Your task to perform on an android device: change the clock display to show seconds Image 0: 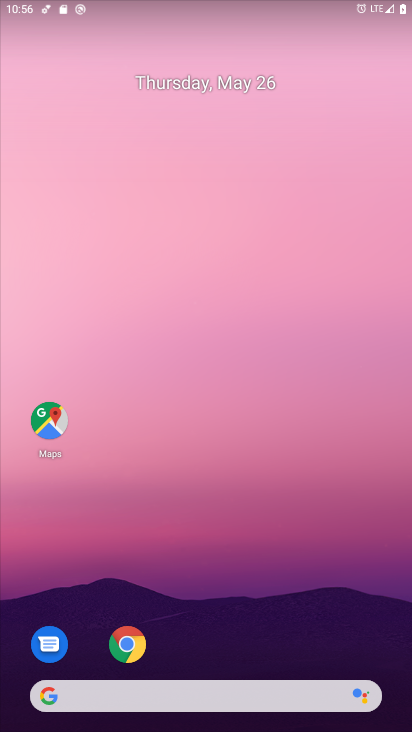
Step 0: drag from (399, 618) to (386, 176)
Your task to perform on an android device: change the clock display to show seconds Image 1: 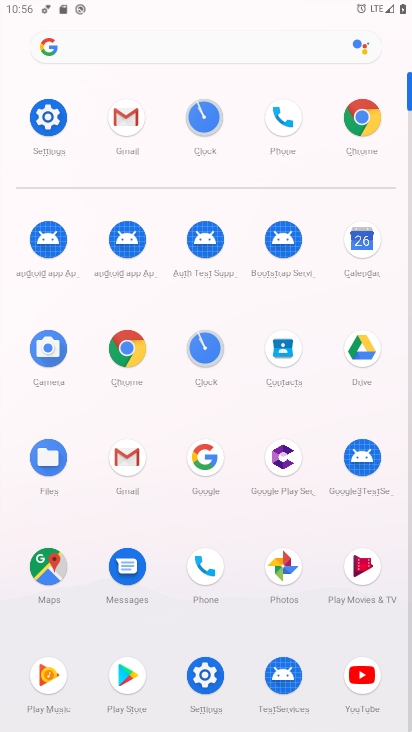
Step 1: click (208, 352)
Your task to perform on an android device: change the clock display to show seconds Image 2: 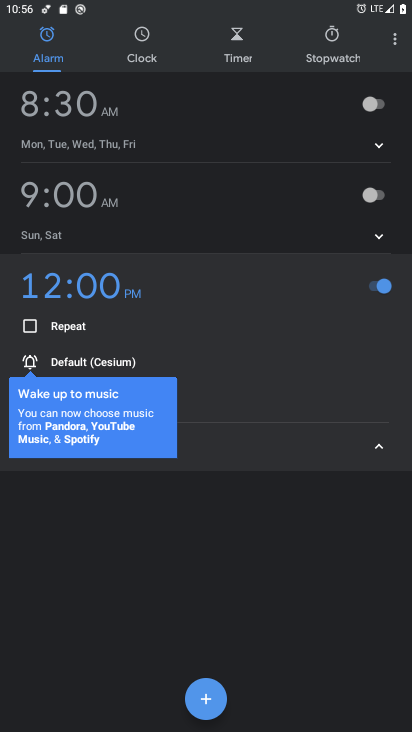
Step 2: click (393, 37)
Your task to perform on an android device: change the clock display to show seconds Image 3: 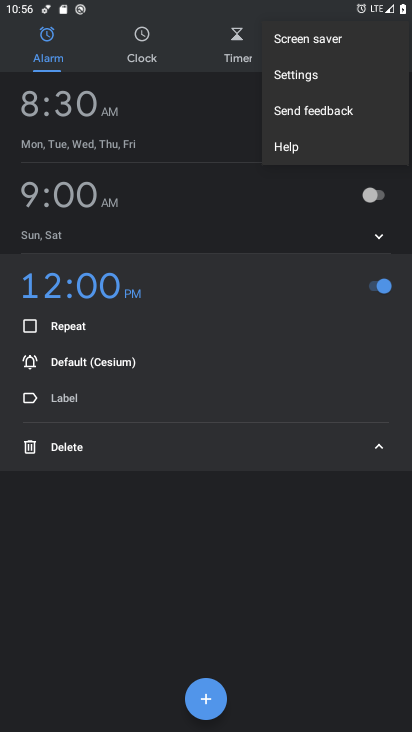
Step 3: click (351, 74)
Your task to perform on an android device: change the clock display to show seconds Image 4: 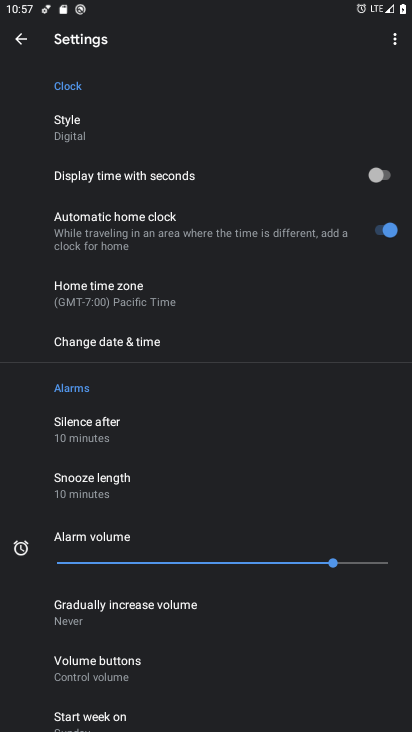
Step 4: drag from (281, 509) to (279, 364)
Your task to perform on an android device: change the clock display to show seconds Image 5: 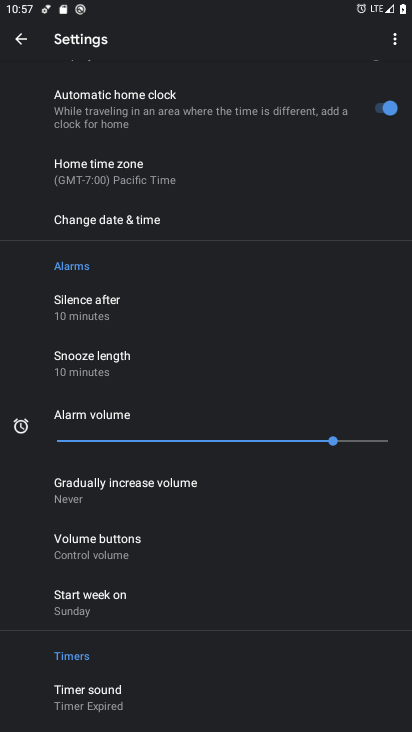
Step 5: drag from (307, 557) to (297, 375)
Your task to perform on an android device: change the clock display to show seconds Image 6: 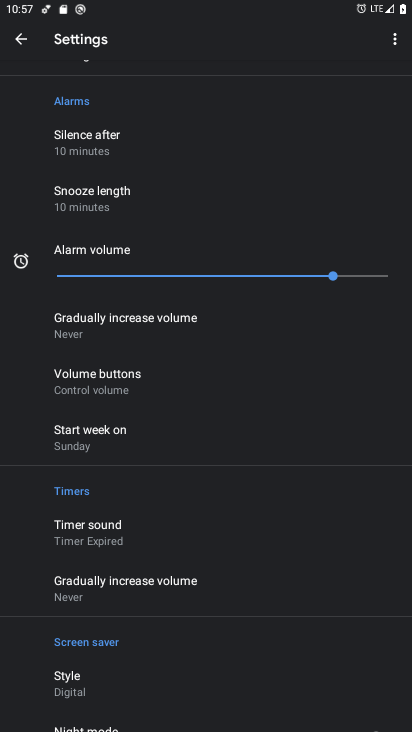
Step 6: drag from (327, 584) to (315, 338)
Your task to perform on an android device: change the clock display to show seconds Image 7: 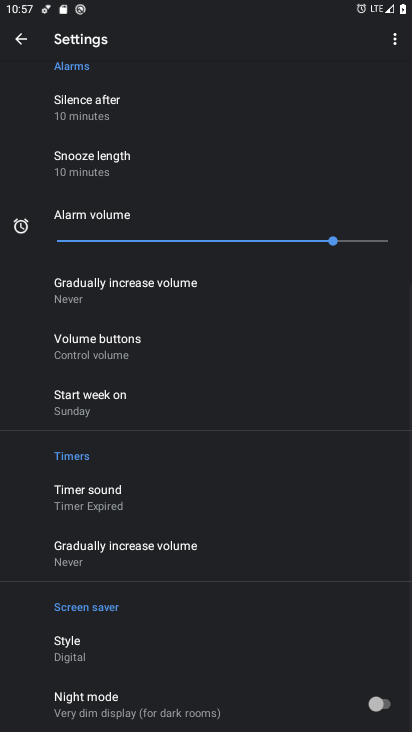
Step 7: drag from (324, 297) to (326, 403)
Your task to perform on an android device: change the clock display to show seconds Image 8: 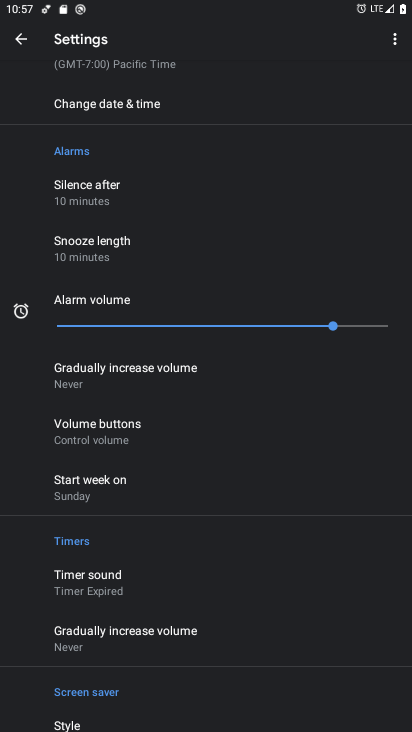
Step 8: drag from (364, 238) to (366, 335)
Your task to perform on an android device: change the clock display to show seconds Image 9: 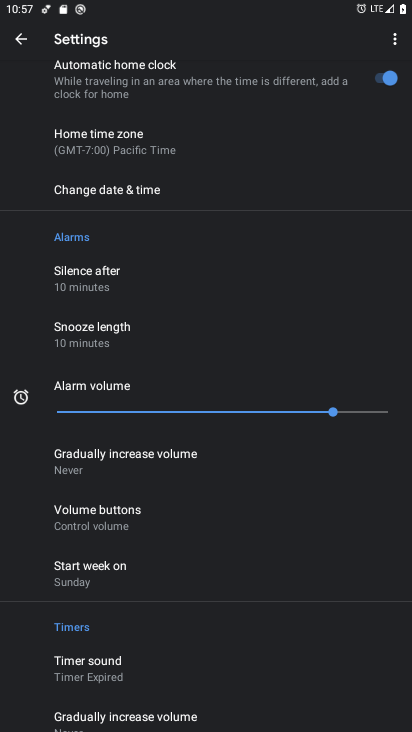
Step 9: drag from (359, 232) to (361, 331)
Your task to perform on an android device: change the clock display to show seconds Image 10: 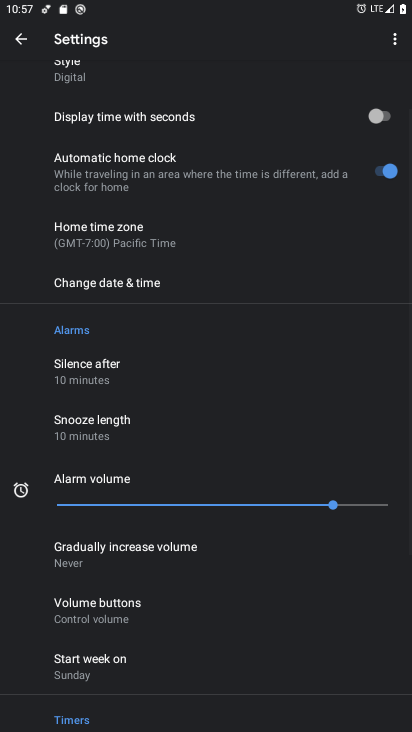
Step 10: drag from (363, 228) to (364, 321)
Your task to perform on an android device: change the clock display to show seconds Image 11: 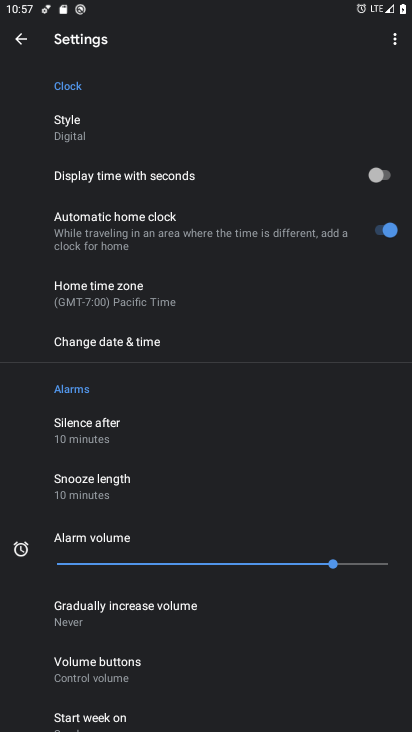
Step 11: click (378, 177)
Your task to perform on an android device: change the clock display to show seconds Image 12: 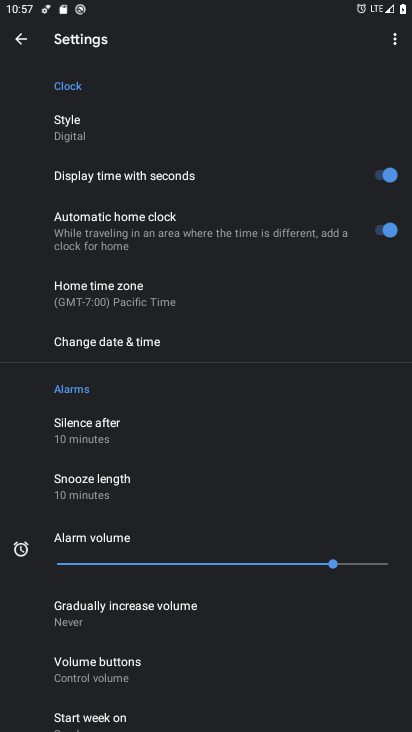
Step 12: task complete